Your task to perform on an android device: open app "Yahoo Mail" (install if not already installed) and go to login screen Image 0: 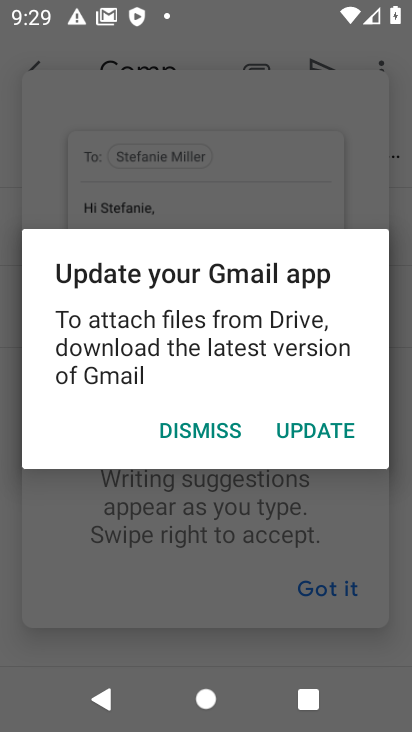
Step 0: press home button
Your task to perform on an android device: open app "Yahoo Mail" (install if not already installed) and go to login screen Image 1: 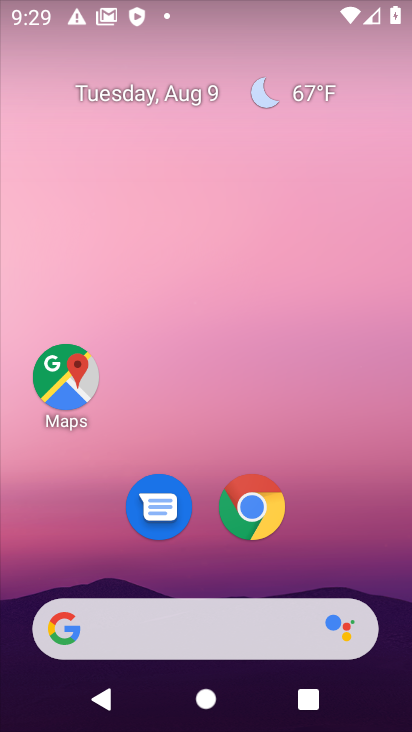
Step 1: drag from (4, 593) to (5, 214)
Your task to perform on an android device: open app "Yahoo Mail" (install if not already installed) and go to login screen Image 2: 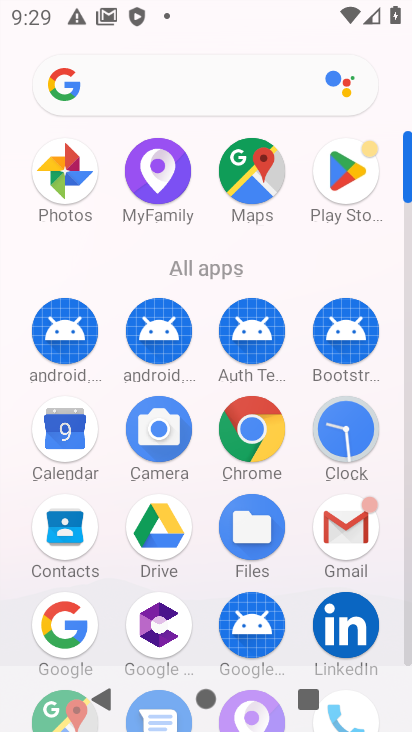
Step 2: drag from (175, 600) to (111, 156)
Your task to perform on an android device: open app "Yahoo Mail" (install if not already installed) and go to login screen Image 3: 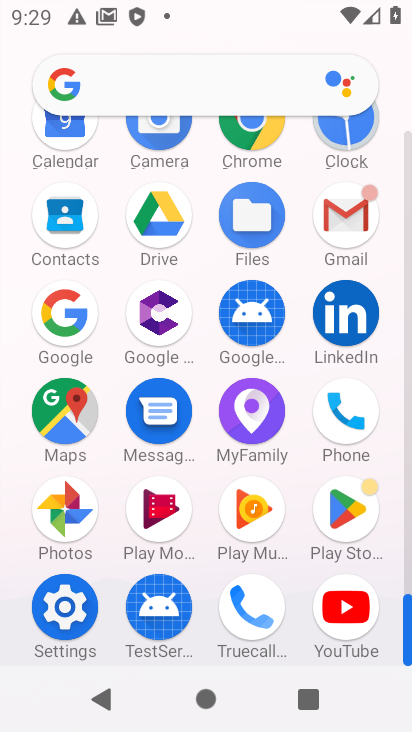
Step 3: drag from (223, 360) to (234, 594)
Your task to perform on an android device: open app "Yahoo Mail" (install if not already installed) and go to login screen Image 4: 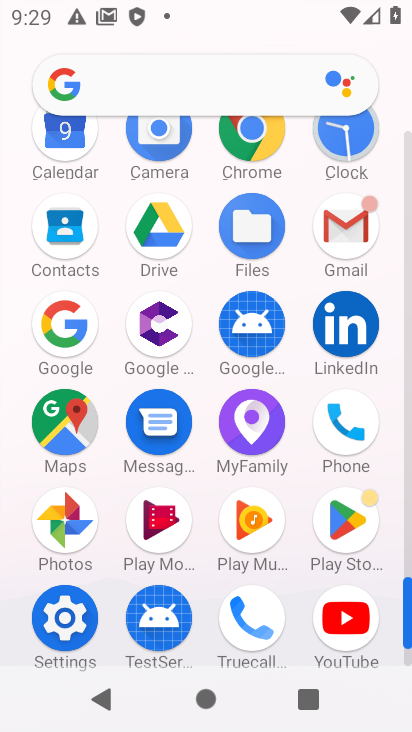
Step 4: drag from (325, 317) to (317, 574)
Your task to perform on an android device: open app "Yahoo Mail" (install if not already installed) and go to login screen Image 5: 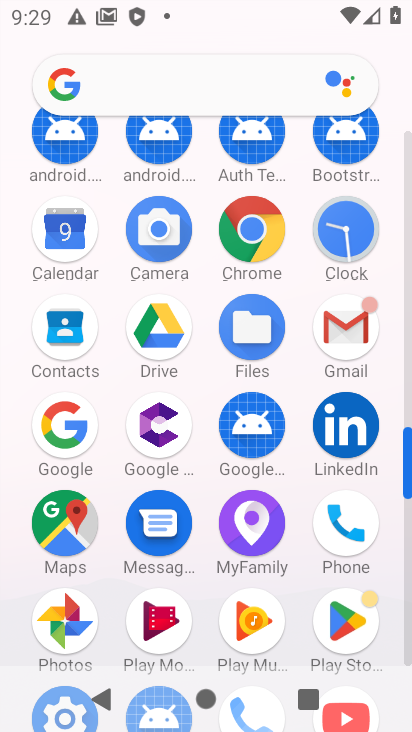
Step 5: drag from (299, 210) to (315, 610)
Your task to perform on an android device: open app "Yahoo Mail" (install if not already installed) and go to login screen Image 6: 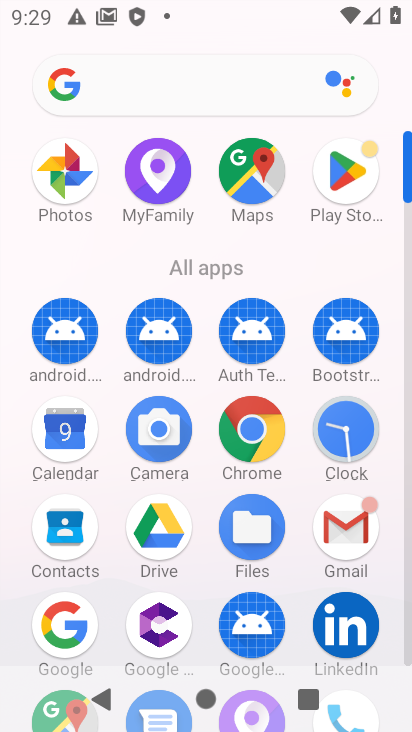
Step 6: click (336, 164)
Your task to perform on an android device: open app "Yahoo Mail" (install if not already installed) and go to login screen Image 7: 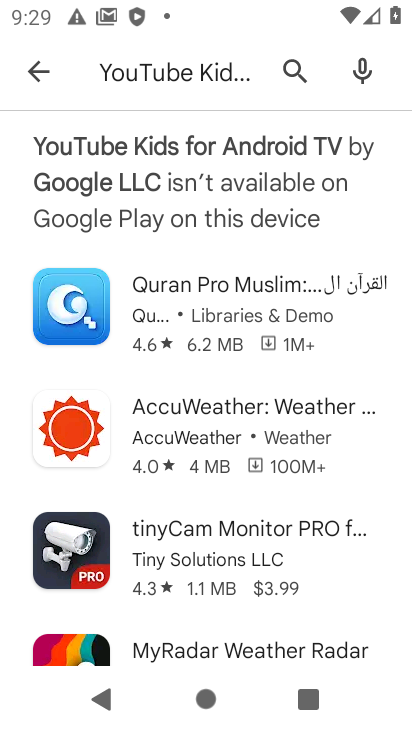
Step 7: click (47, 65)
Your task to perform on an android device: open app "Yahoo Mail" (install if not already installed) and go to login screen Image 8: 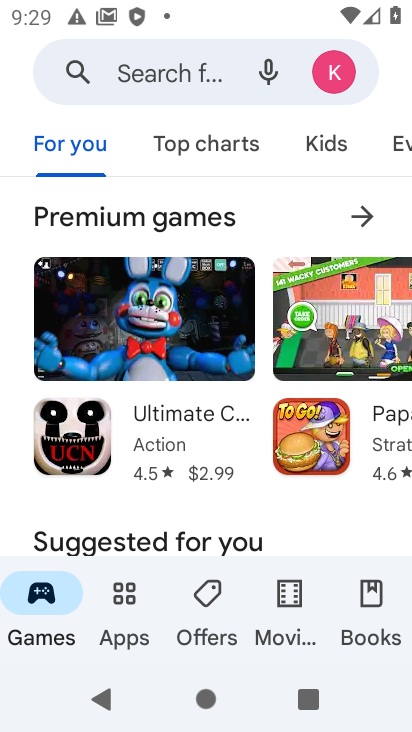
Step 8: click (123, 76)
Your task to perform on an android device: open app "Yahoo Mail" (install if not already installed) and go to login screen Image 9: 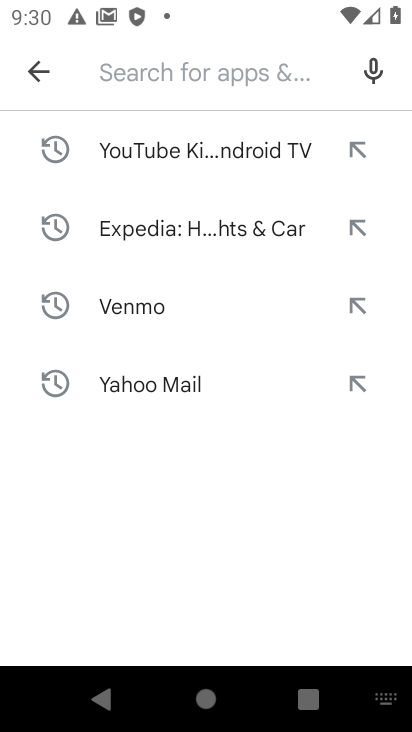
Step 9: type "Yahoo Mail"
Your task to perform on an android device: open app "Yahoo Mail" (install if not already installed) and go to login screen Image 10: 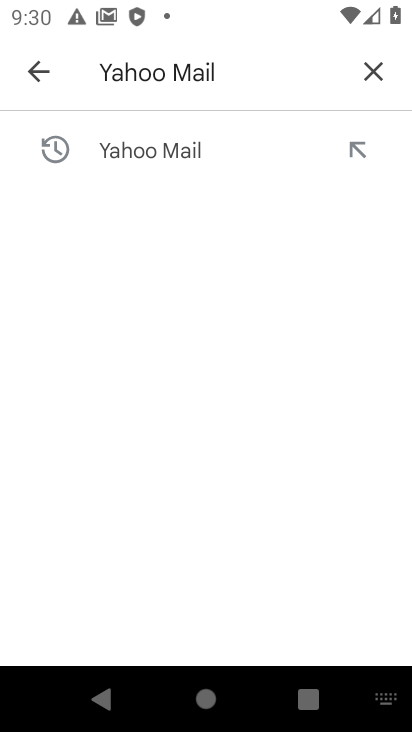
Step 10: click (124, 154)
Your task to perform on an android device: open app "Yahoo Mail" (install if not already installed) and go to login screen Image 11: 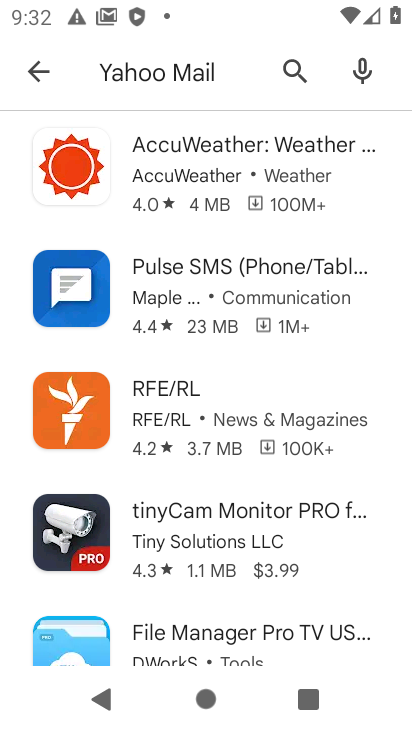
Step 11: task complete